Your task to perform on an android device: make emails show in primary in the gmail app Image 0: 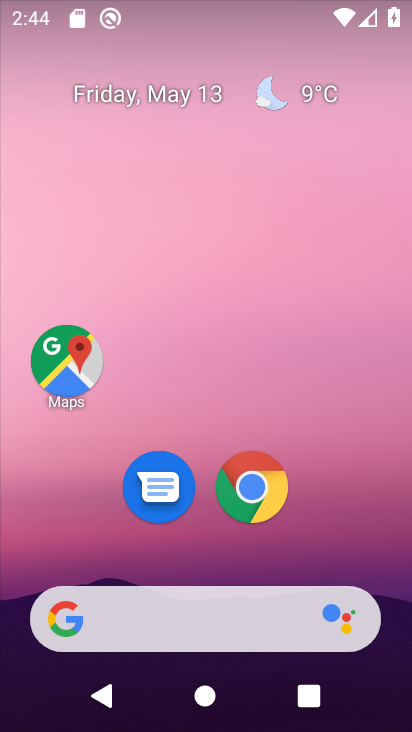
Step 0: drag from (174, 593) to (116, 0)
Your task to perform on an android device: make emails show in primary in the gmail app Image 1: 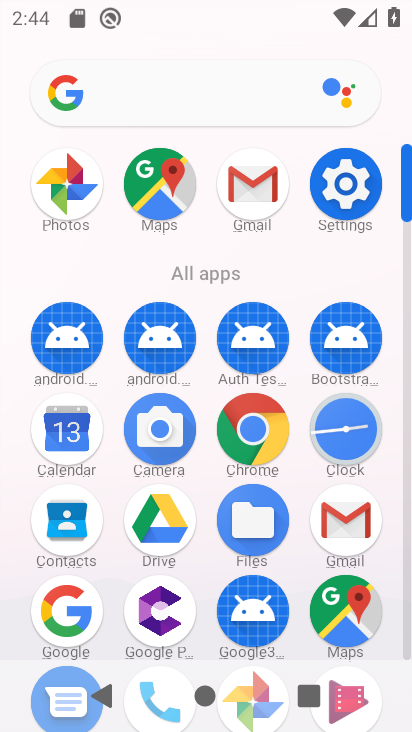
Step 1: click (346, 524)
Your task to perform on an android device: make emails show in primary in the gmail app Image 2: 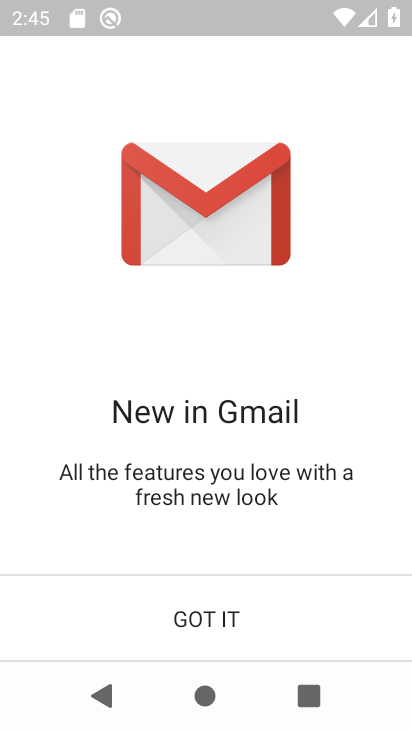
Step 2: click (212, 629)
Your task to perform on an android device: make emails show in primary in the gmail app Image 3: 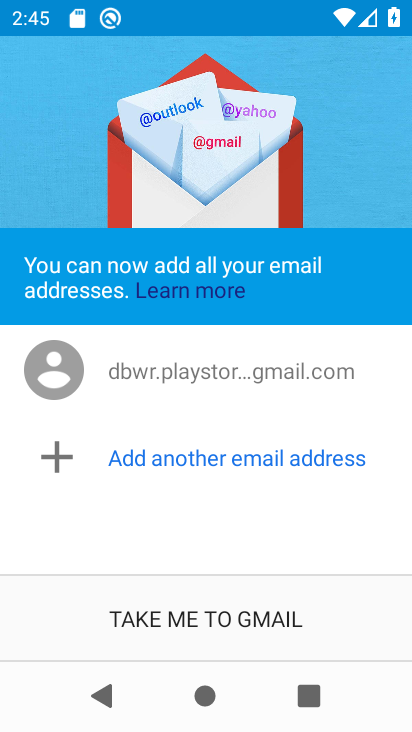
Step 3: click (198, 626)
Your task to perform on an android device: make emails show in primary in the gmail app Image 4: 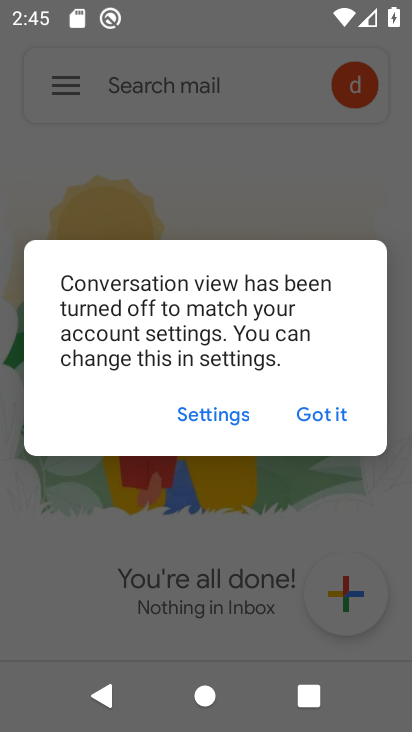
Step 4: click (316, 409)
Your task to perform on an android device: make emails show in primary in the gmail app Image 5: 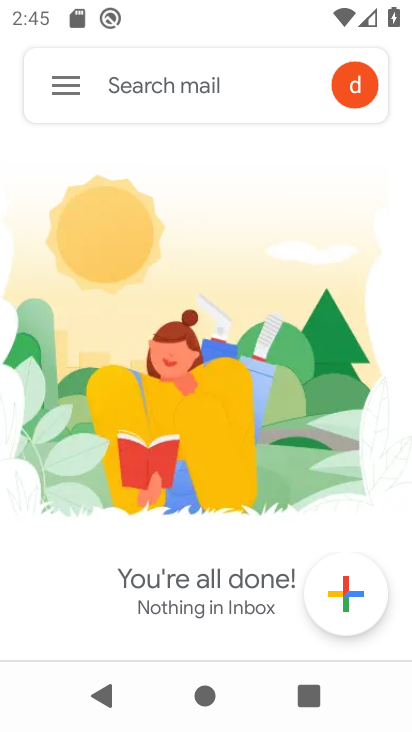
Step 5: click (81, 80)
Your task to perform on an android device: make emails show in primary in the gmail app Image 6: 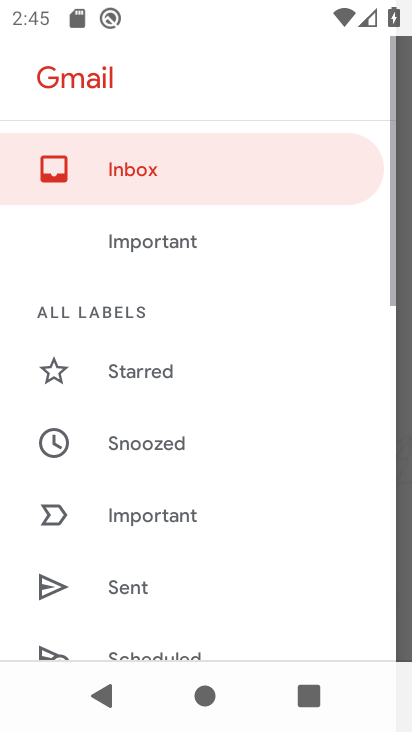
Step 6: drag from (219, 663) to (124, 19)
Your task to perform on an android device: make emails show in primary in the gmail app Image 7: 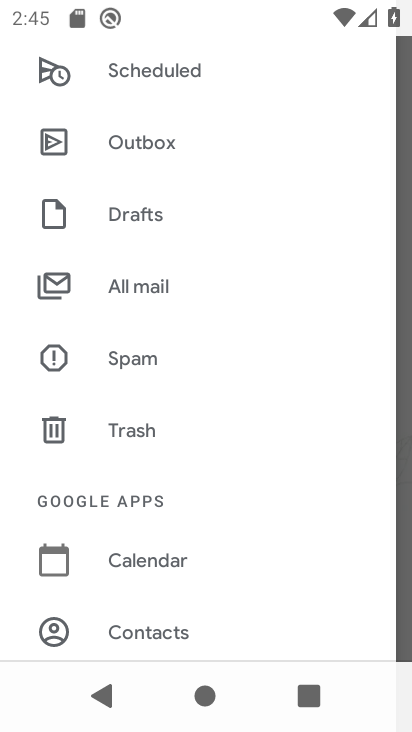
Step 7: drag from (205, 506) to (48, 53)
Your task to perform on an android device: make emails show in primary in the gmail app Image 8: 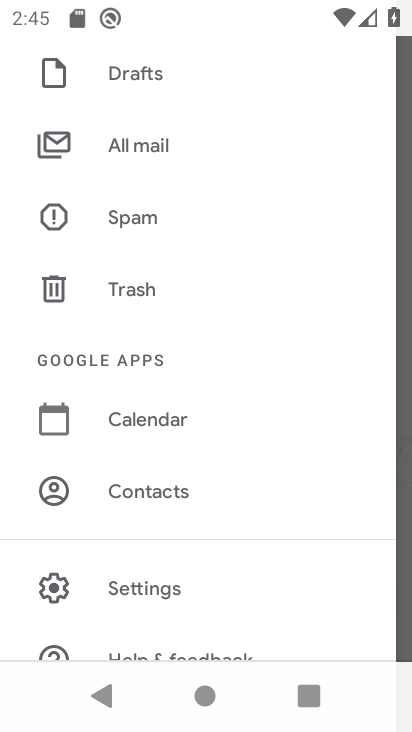
Step 8: drag from (132, 551) to (102, 254)
Your task to perform on an android device: make emails show in primary in the gmail app Image 9: 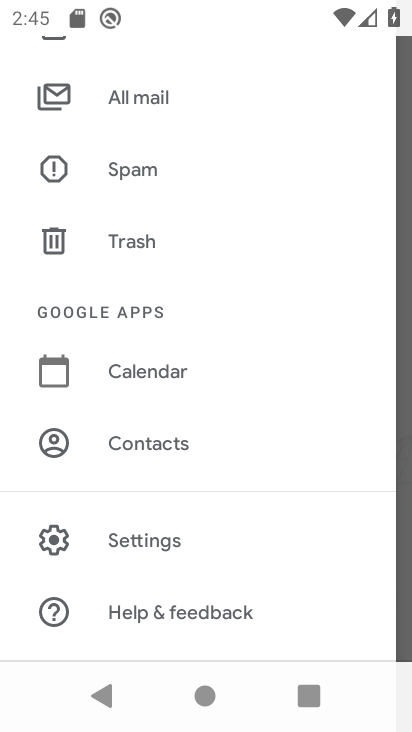
Step 9: click (141, 546)
Your task to perform on an android device: make emails show in primary in the gmail app Image 10: 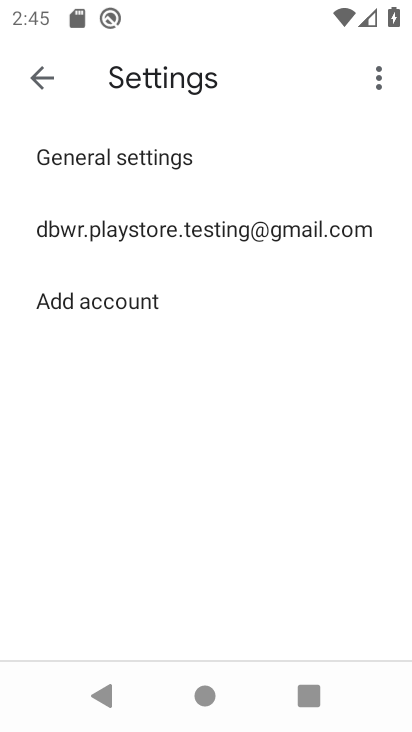
Step 10: click (184, 222)
Your task to perform on an android device: make emails show in primary in the gmail app Image 11: 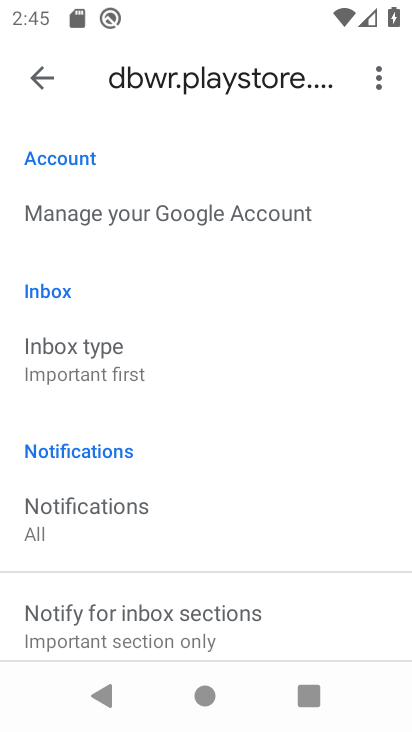
Step 11: click (95, 368)
Your task to perform on an android device: make emails show in primary in the gmail app Image 12: 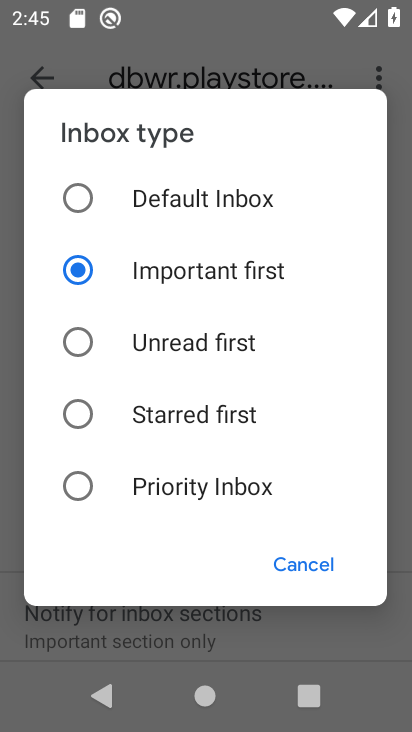
Step 12: click (100, 193)
Your task to perform on an android device: make emails show in primary in the gmail app Image 13: 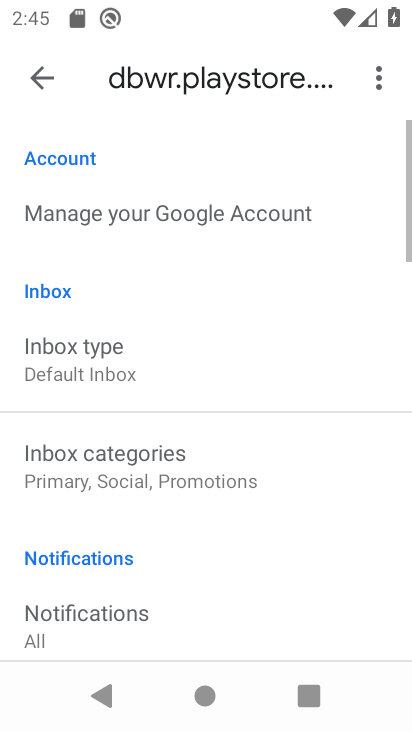
Step 13: click (137, 462)
Your task to perform on an android device: make emails show in primary in the gmail app Image 14: 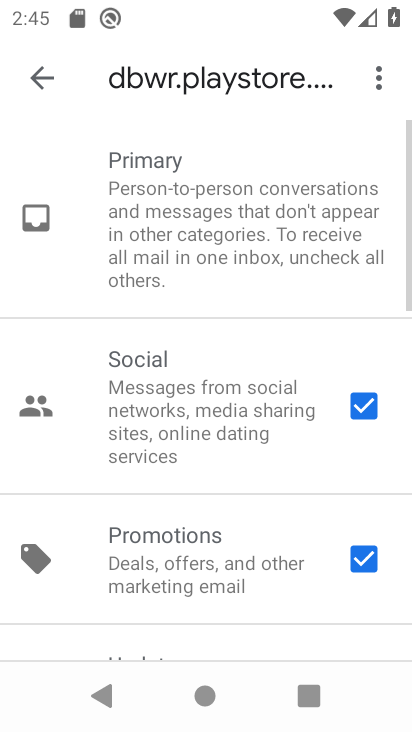
Step 14: click (364, 397)
Your task to perform on an android device: make emails show in primary in the gmail app Image 15: 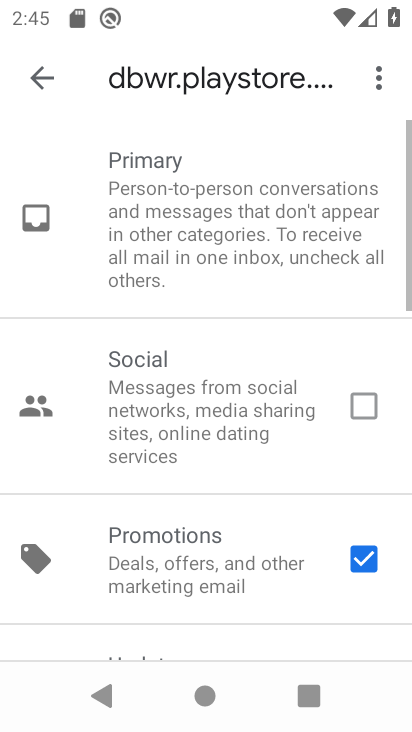
Step 15: click (369, 550)
Your task to perform on an android device: make emails show in primary in the gmail app Image 16: 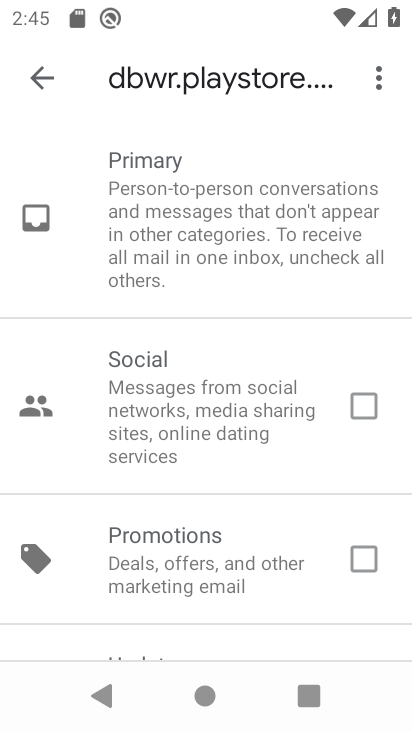
Step 16: task complete